Your task to perform on an android device: allow notifications from all sites in the chrome app Image 0: 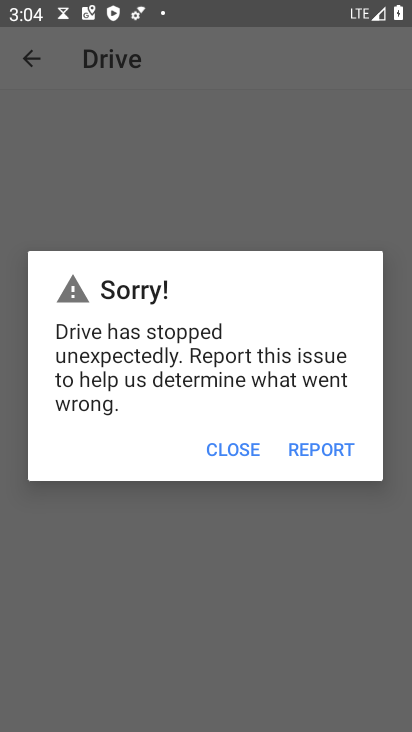
Step 0: press home button
Your task to perform on an android device: allow notifications from all sites in the chrome app Image 1: 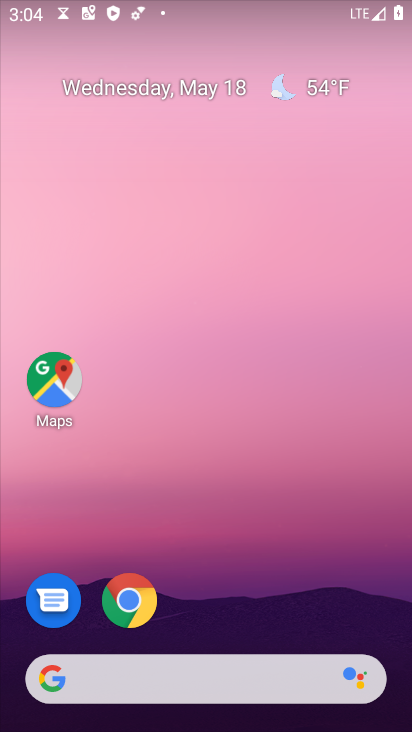
Step 1: drag from (142, 624) to (378, 0)
Your task to perform on an android device: allow notifications from all sites in the chrome app Image 2: 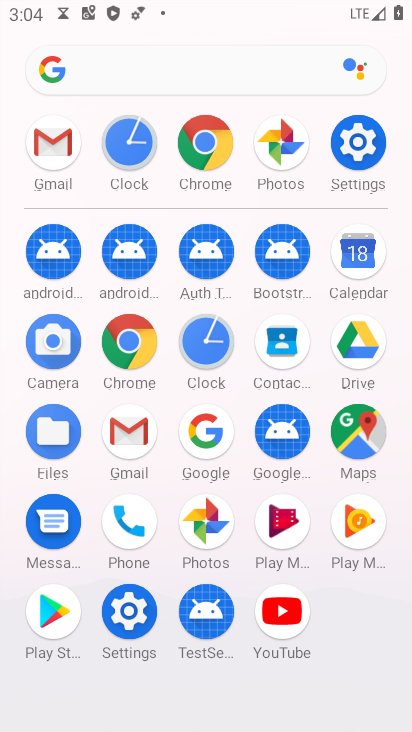
Step 2: click (207, 137)
Your task to perform on an android device: allow notifications from all sites in the chrome app Image 3: 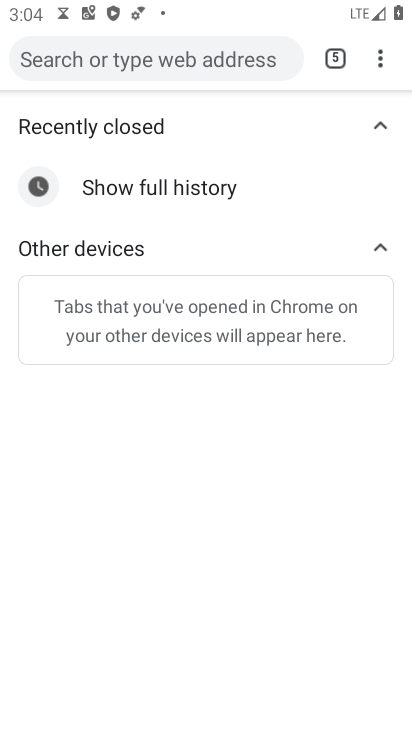
Step 3: drag from (380, 60) to (247, 492)
Your task to perform on an android device: allow notifications from all sites in the chrome app Image 4: 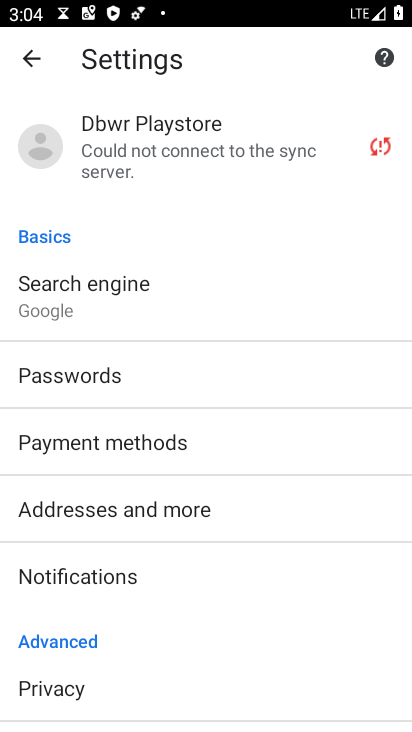
Step 4: drag from (168, 605) to (336, 151)
Your task to perform on an android device: allow notifications from all sites in the chrome app Image 5: 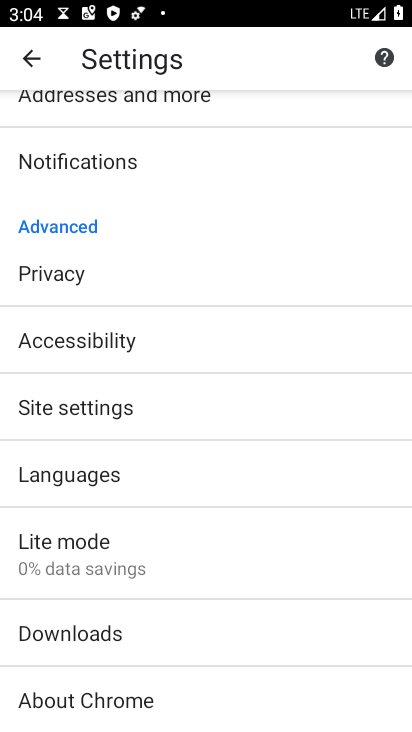
Step 5: click (102, 403)
Your task to perform on an android device: allow notifications from all sites in the chrome app Image 6: 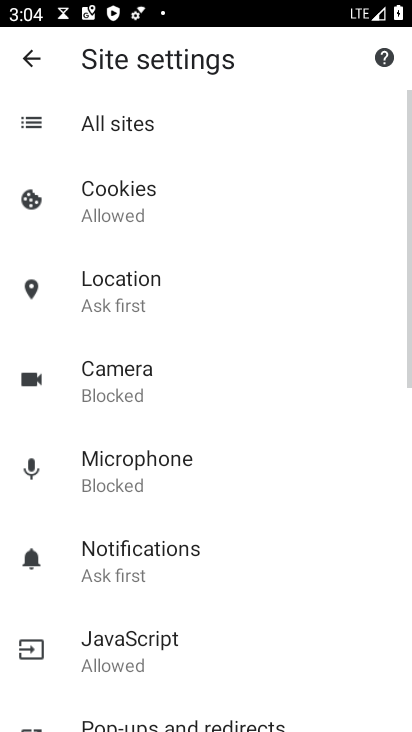
Step 6: click (153, 546)
Your task to perform on an android device: allow notifications from all sites in the chrome app Image 7: 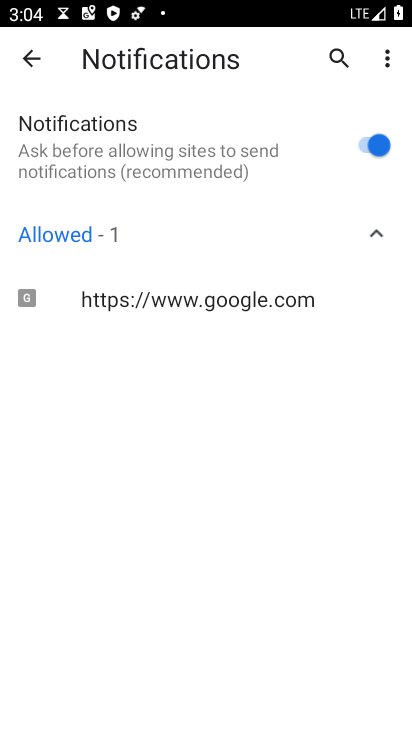
Step 7: task complete